Your task to perform on an android device: What's the weather today? Image 0: 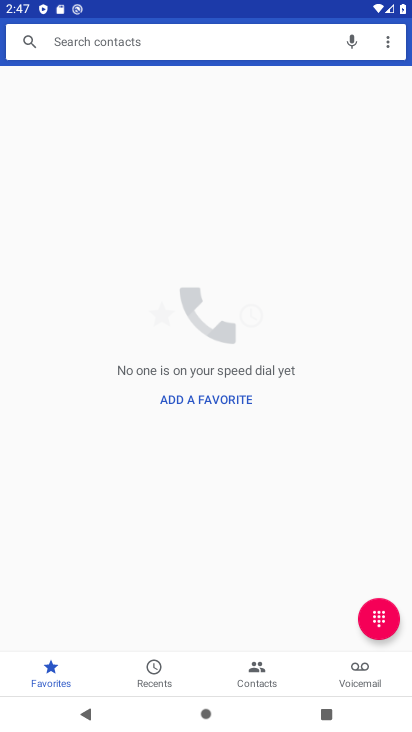
Step 0: press home button
Your task to perform on an android device: What's the weather today? Image 1: 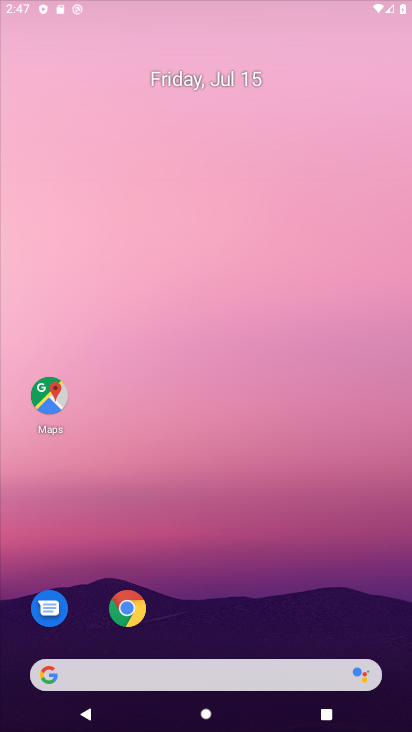
Step 1: drag from (205, 554) to (240, 204)
Your task to perform on an android device: What's the weather today? Image 2: 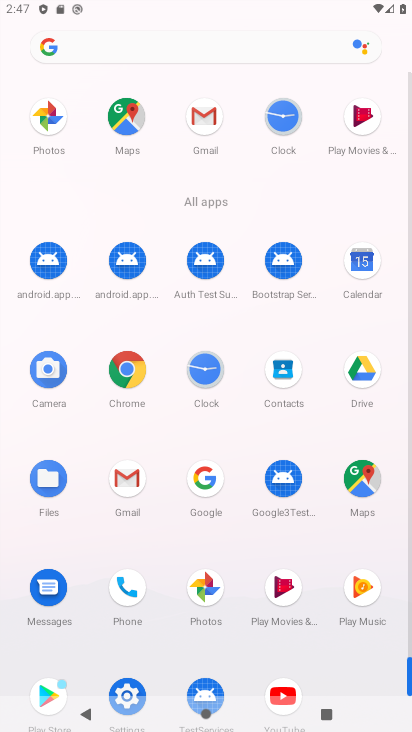
Step 2: click (204, 473)
Your task to perform on an android device: What's the weather today? Image 3: 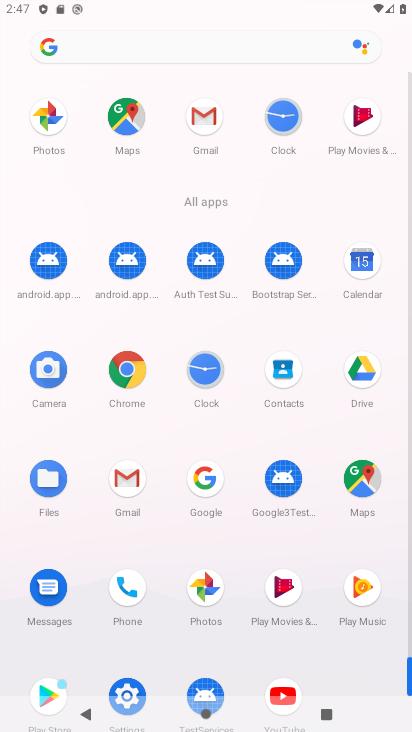
Step 3: click (207, 483)
Your task to perform on an android device: What's the weather today? Image 4: 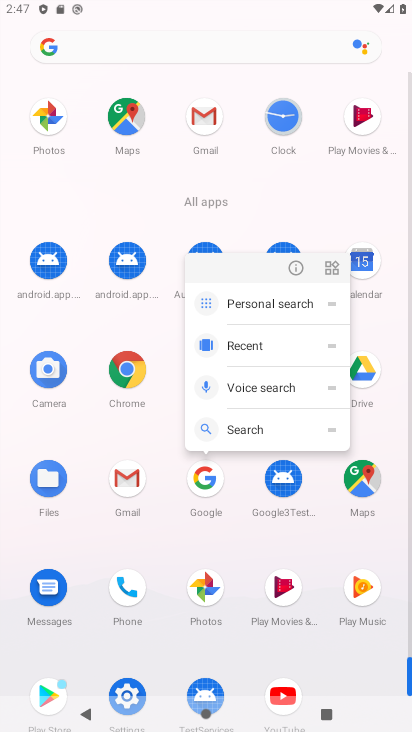
Step 4: click (213, 475)
Your task to perform on an android device: What's the weather today? Image 5: 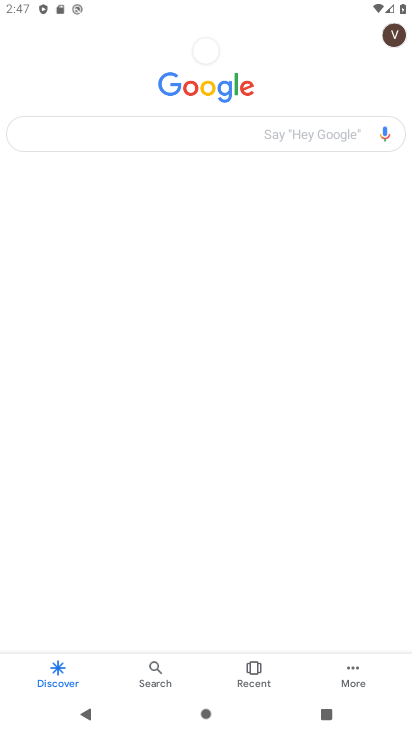
Step 5: click (170, 130)
Your task to perform on an android device: What's the weather today? Image 6: 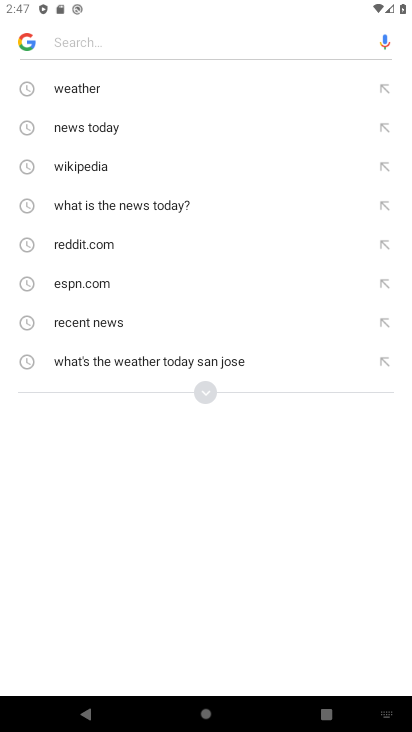
Step 6: type "weather today"
Your task to perform on an android device: What's the weather today? Image 7: 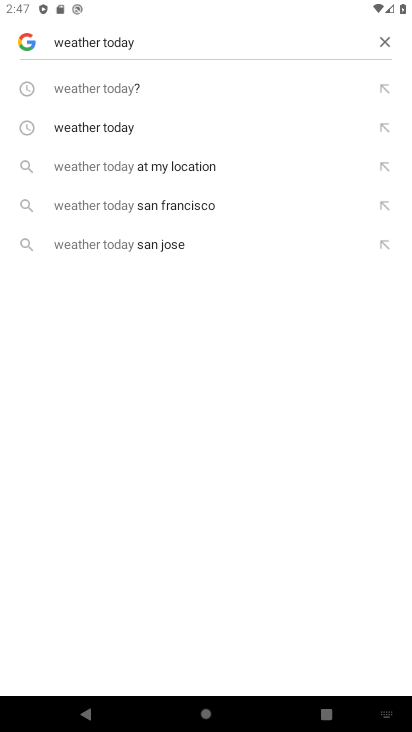
Step 7: click (131, 89)
Your task to perform on an android device: What's the weather today? Image 8: 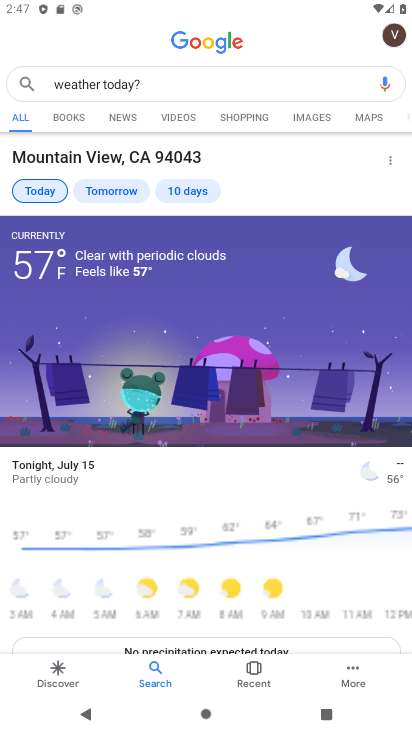
Step 8: task complete